Your task to perform on an android device: open wifi settings Image 0: 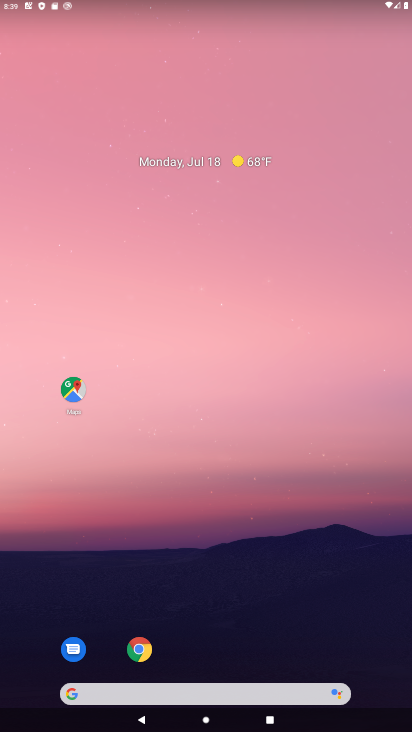
Step 0: drag from (239, 723) to (230, 251)
Your task to perform on an android device: open wifi settings Image 1: 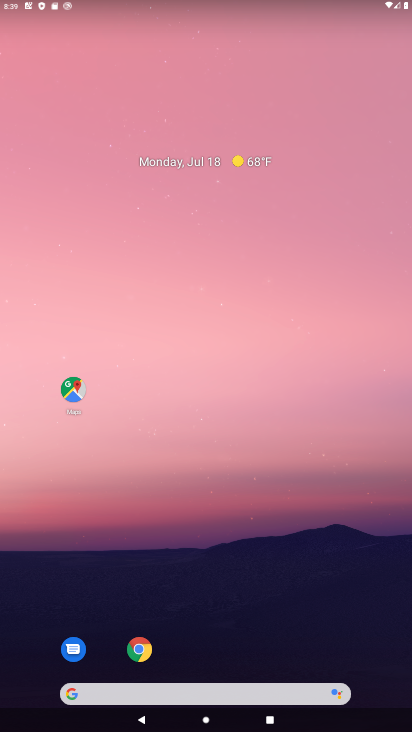
Step 1: drag from (240, 717) to (208, 41)
Your task to perform on an android device: open wifi settings Image 2: 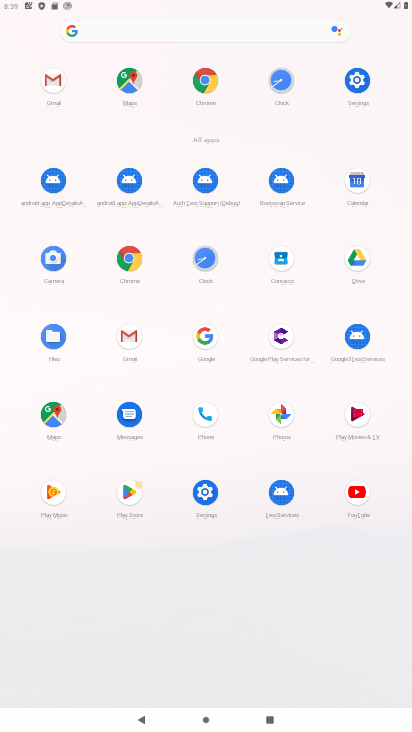
Step 2: click (362, 85)
Your task to perform on an android device: open wifi settings Image 3: 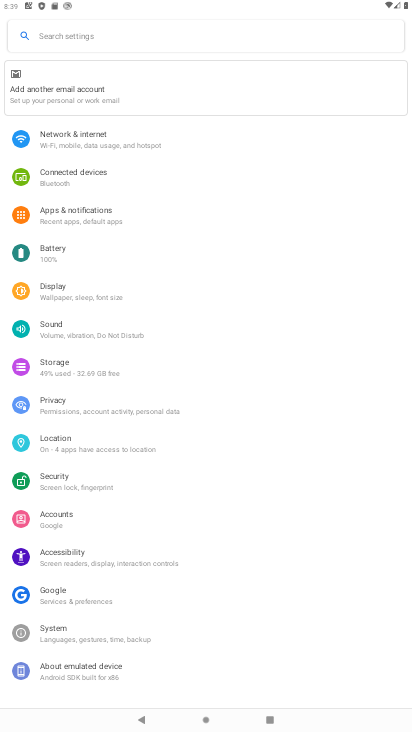
Step 3: click (161, 140)
Your task to perform on an android device: open wifi settings Image 4: 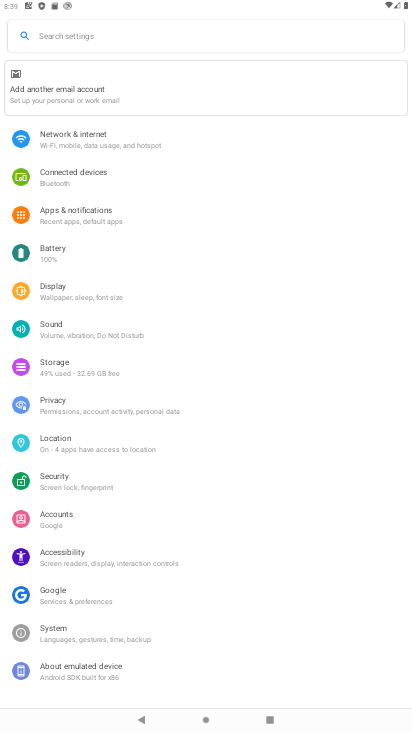
Step 4: click (162, 136)
Your task to perform on an android device: open wifi settings Image 5: 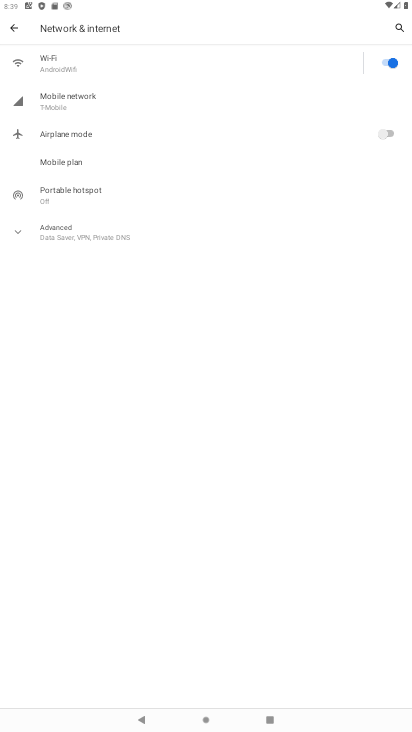
Step 5: click (245, 54)
Your task to perform on an android device: open wifi settings Image 6: 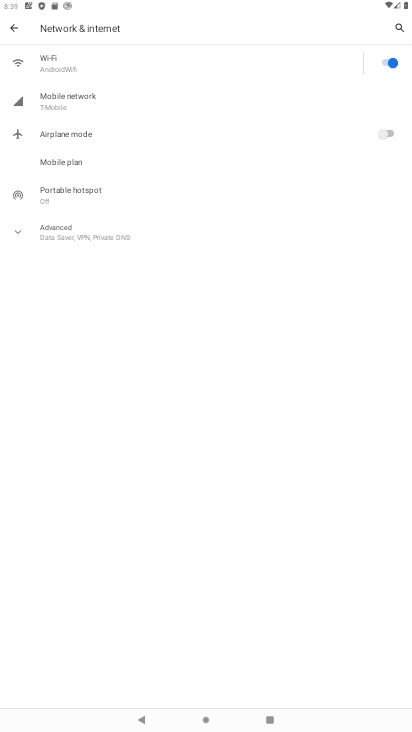
Step 6: click (245, 54)
Your task to perform on an android device: open wifi settings Image 7: 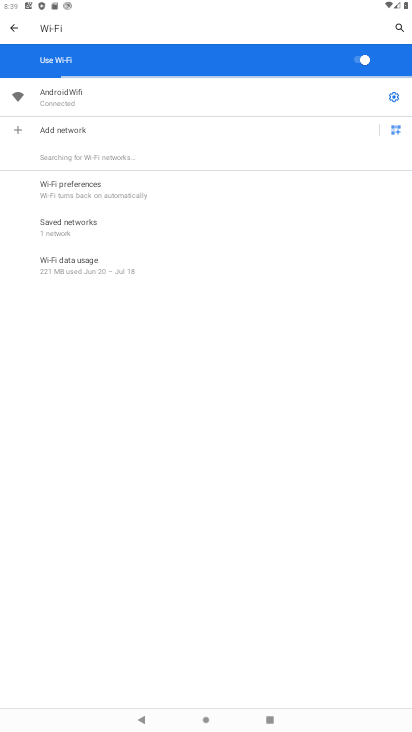
Step 7: click (395, 95)
Your task to perform on an android device: open wifi settings Image 8: 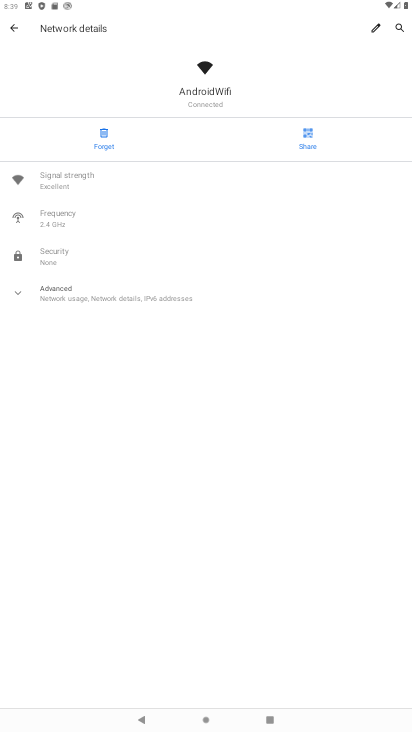
Step 8: task complete